Your task to perform on an android device: Add "amazon basics triple a" to the cart on newegg.com, then select checkout. Image 0: 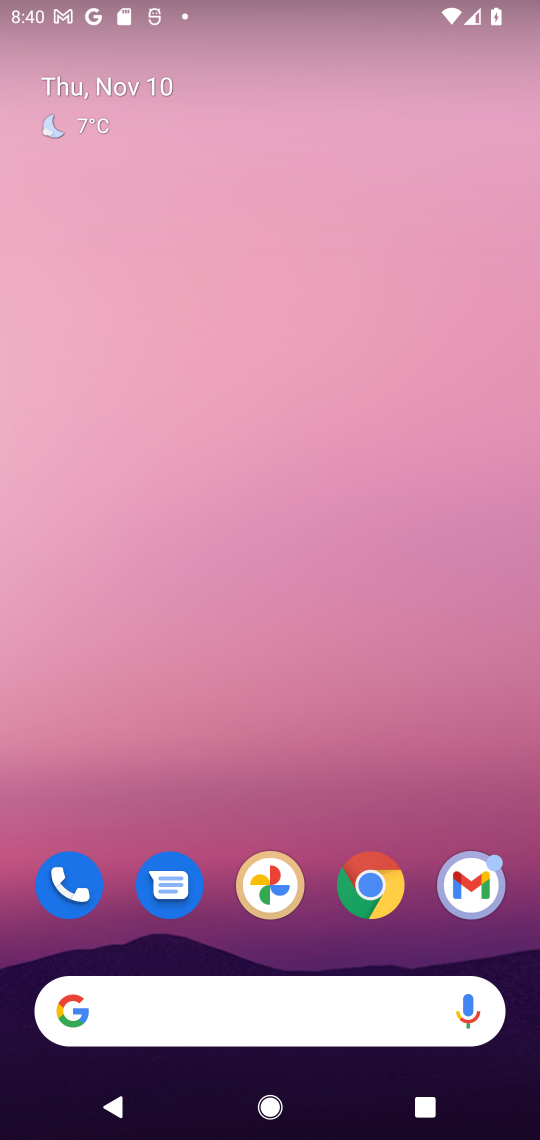
Step 0: click (381, 882)
Your task to perform on an android device: Add "amazon basics triple a" to the cart on newegg.com, then select checkout. Image 1: 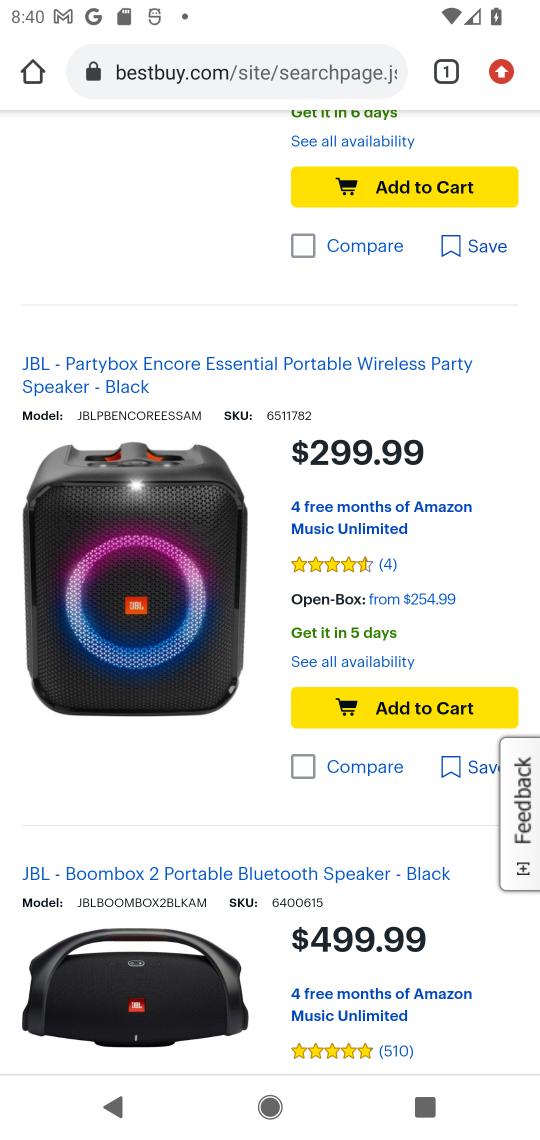
Step 1: click (305, 56)
Your task to perform on an android device: Add "amazon basics triple a" to the cart on newegg.com, then select checkout. Image 2: 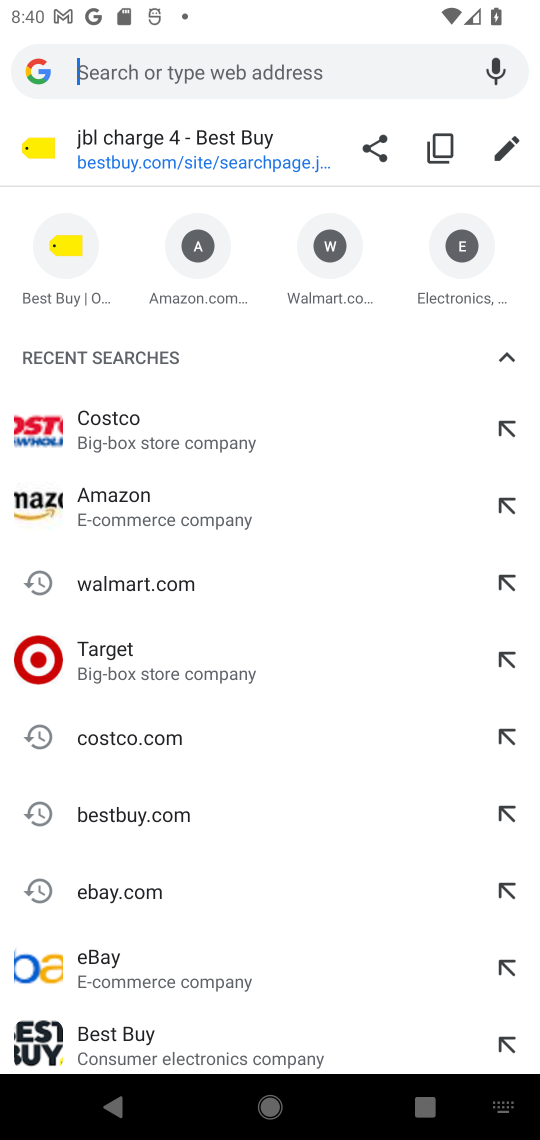
Step 2: type "newegg.com"
Your task to perform on an android device: Add "amazon basics triple a" to the cart on newegg.com, then select checkout. Image 3: 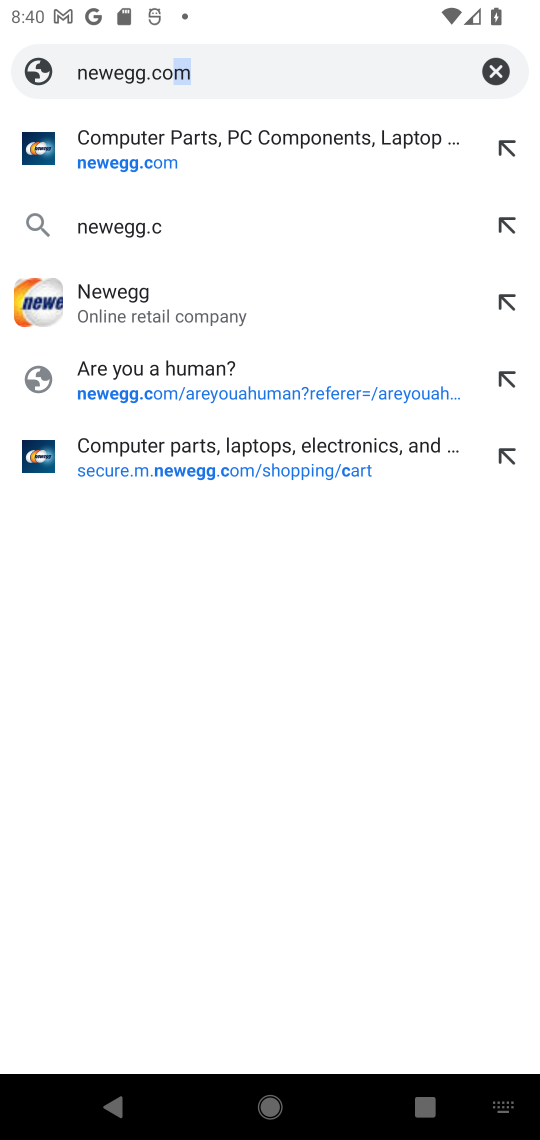
Step 3: press enter
Your task to perform on an android device: Add "amazon basics triple a" to the cart on newegg.com, then select checkout. Image 4: 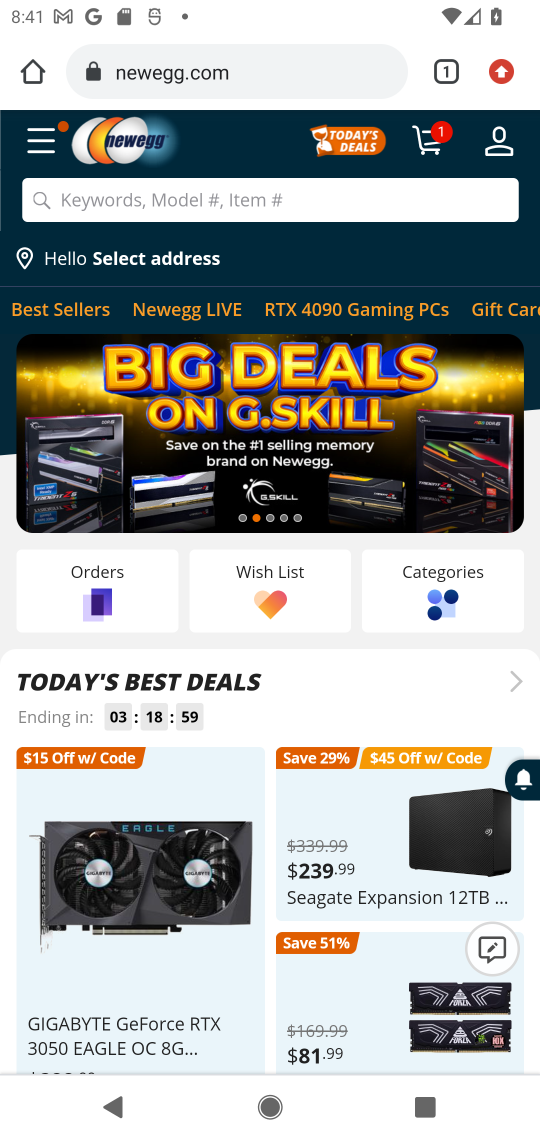
Step 4: click (315, 192)
Your task to perform on an android device: Add "amazon basics triple a" to the cart on newegg.com, then select checkout. Image 5: 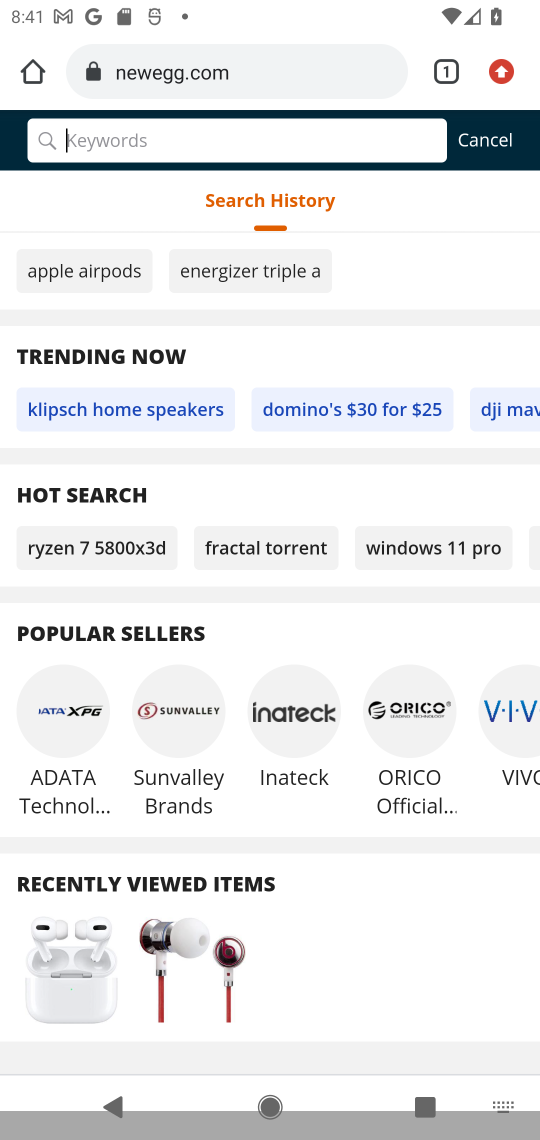
Step 5: press enter
Your task to perform on an android device: Add "amazon basics triple a" to the cart on newegg.com, then select checkout. Image 6: 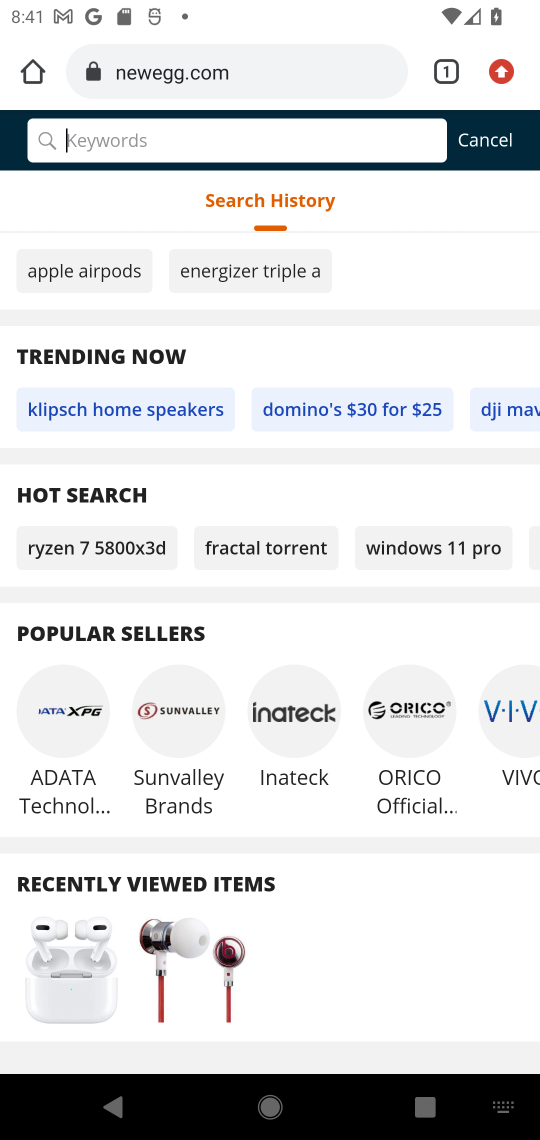
Step 6: type "amazon basics triple a"
Your task to perform on an android device: Add "amazon basics triple a" to the cart on newegg.com, then select checkout. Image 7: 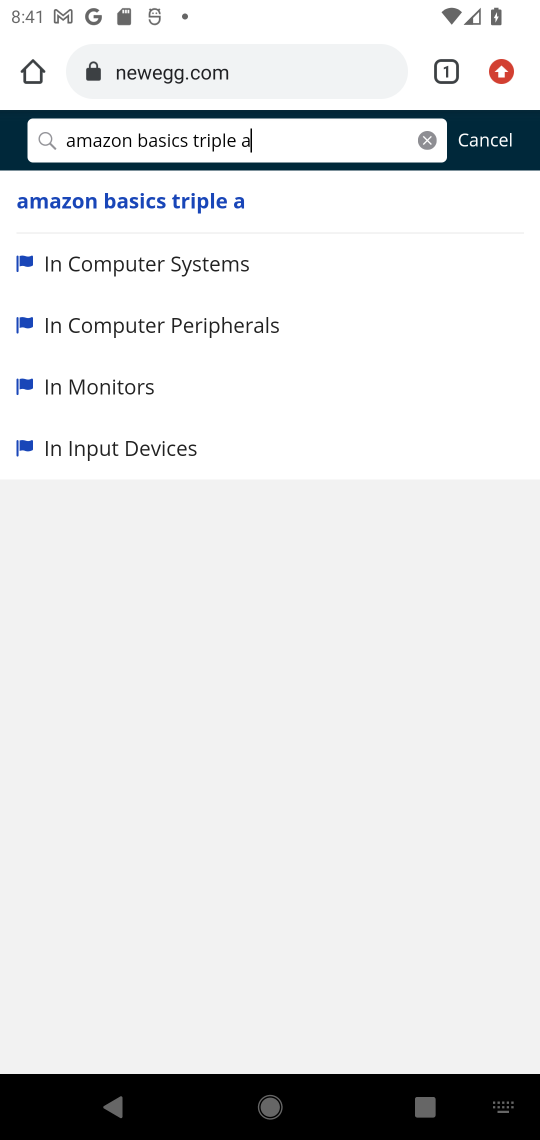
Step 7: click (132, 198)
Your task to perform on an android device: Add "amazon basics triple a" to the cart on newegg.com, then select checkout. Image 8: 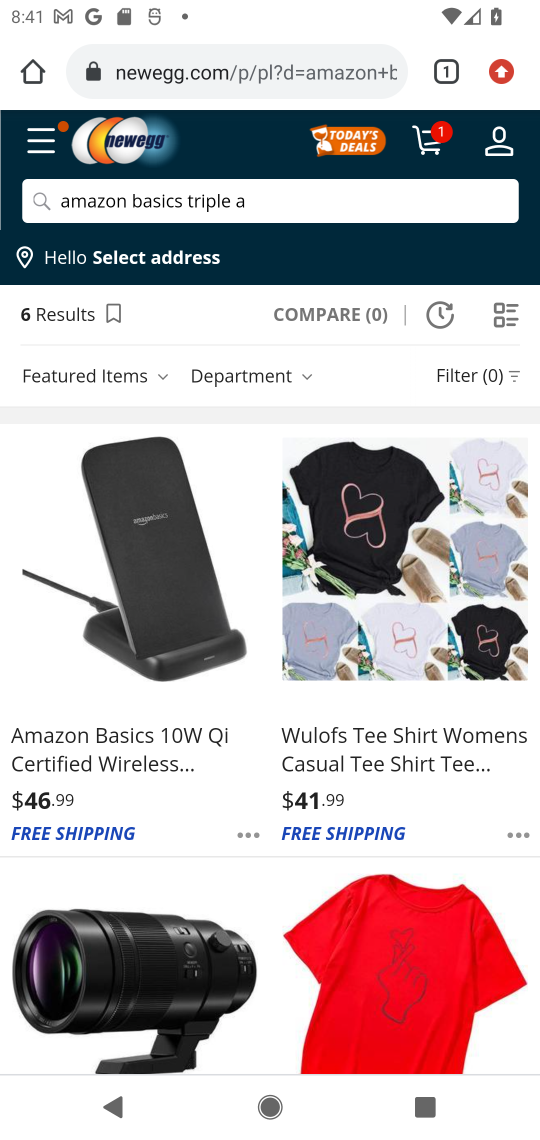
Step 8: drag from (325, 800) to (382, 543)
Your task to perform on an android device: Add "amazon basics triple a" to the cart on newegg.com, then select checkout. Image 9: 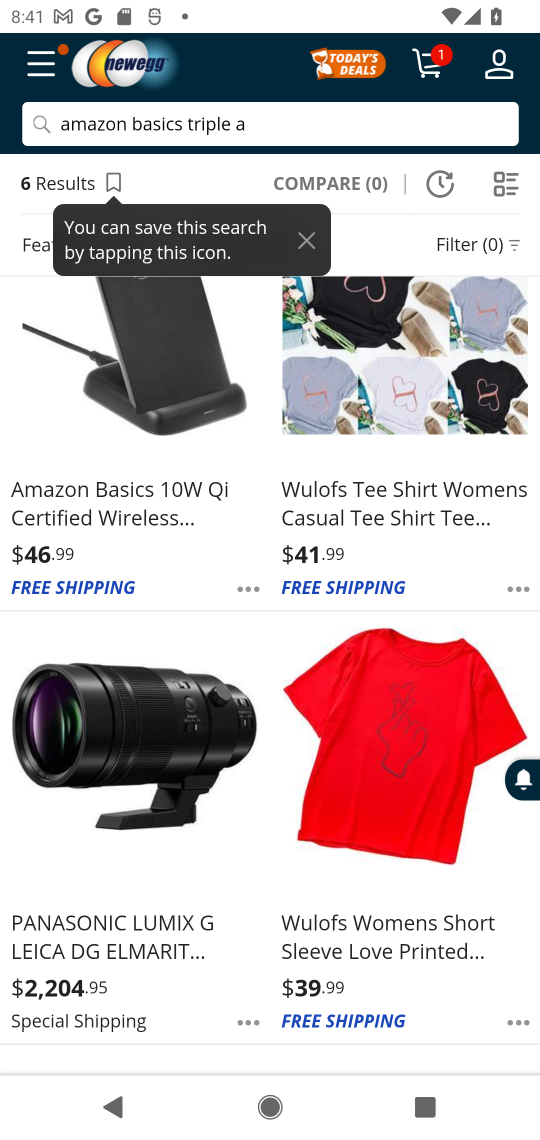
Step 9: drag from (375, 928) to (435, 587)
Your task to perform on an android device: Add "amazon basics triple a" to the cart on newegg.com, then select checkout. Image 10: 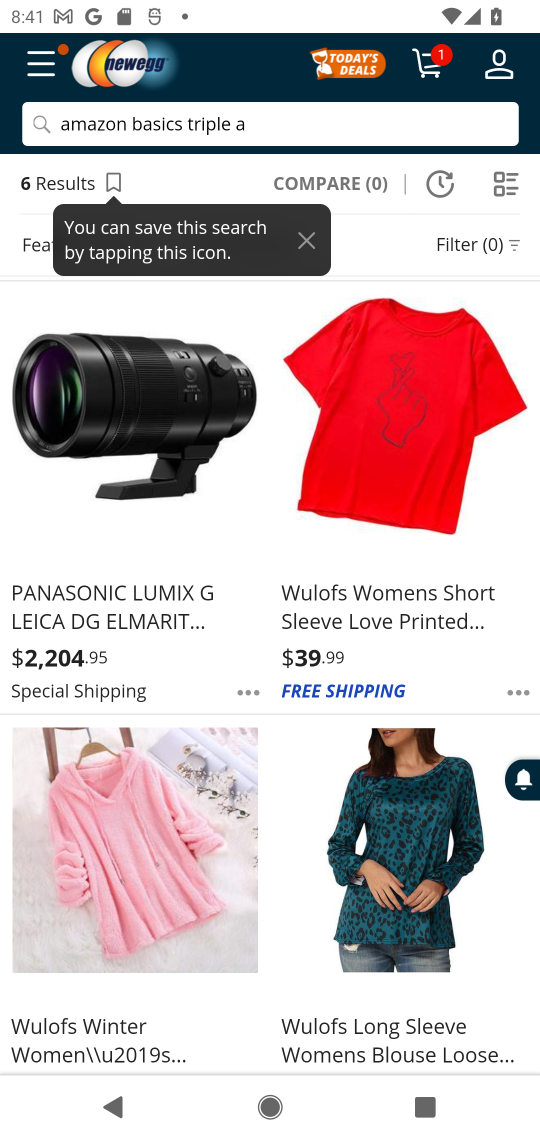
Step 10: drag from (345, 394) to (370, 1057)
Your task to perform on an android device: Add "amazon basics triple a" to the cart on newegg.com, then select checkout. Image 11: 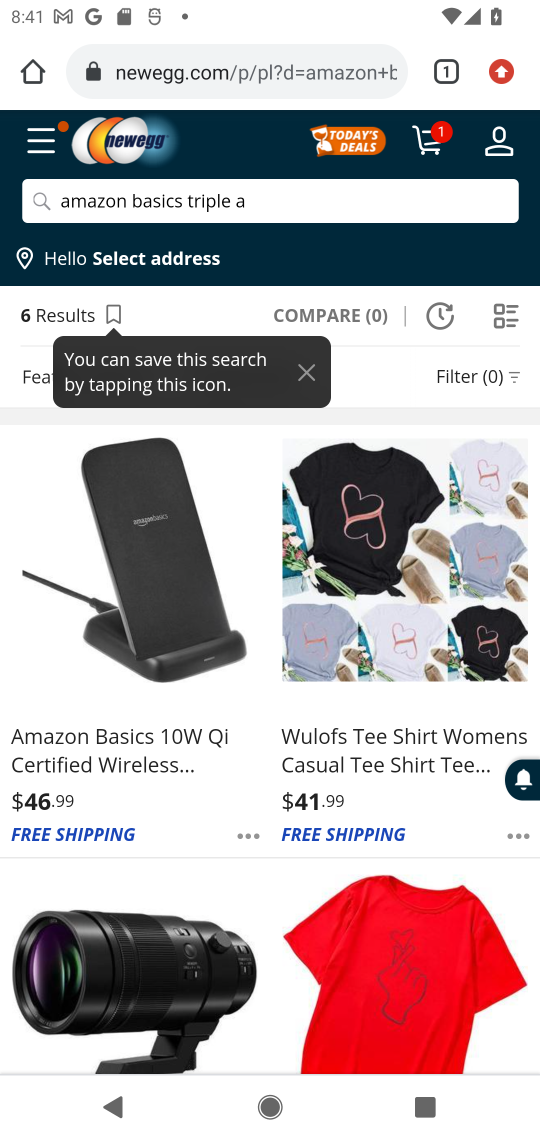
Step 11: click (325, 203)
Your task to perform on an android device: Add "amazon basics triple a" to the cart on newegg.com, then select checkout. Image 12: 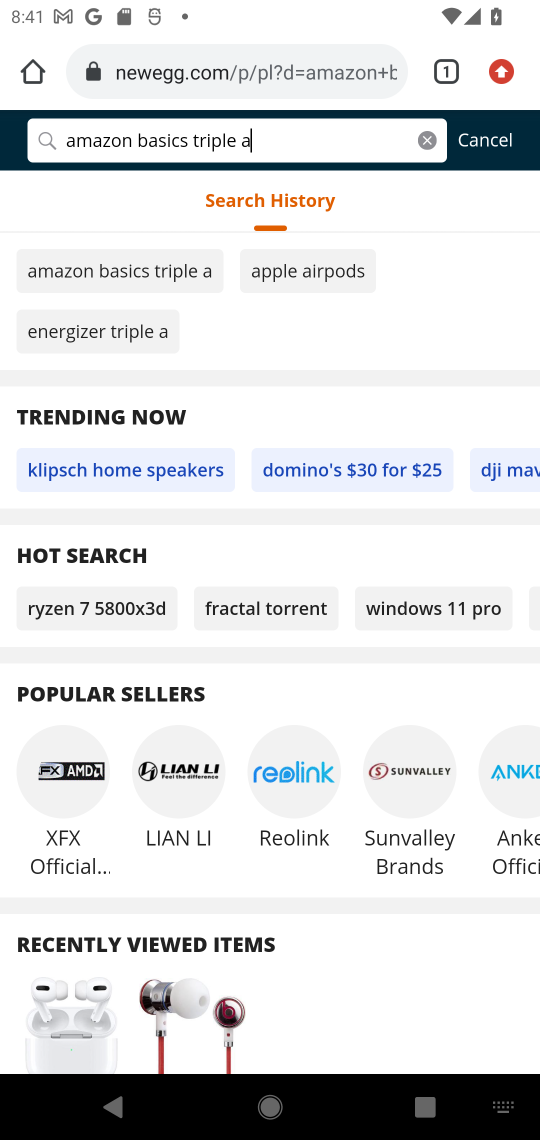
Step 12: click (167, 267)
Your task to perform on an android device: Add "amazon basics triple a" to the cart on newegg.com, then select checkout. Image 13: 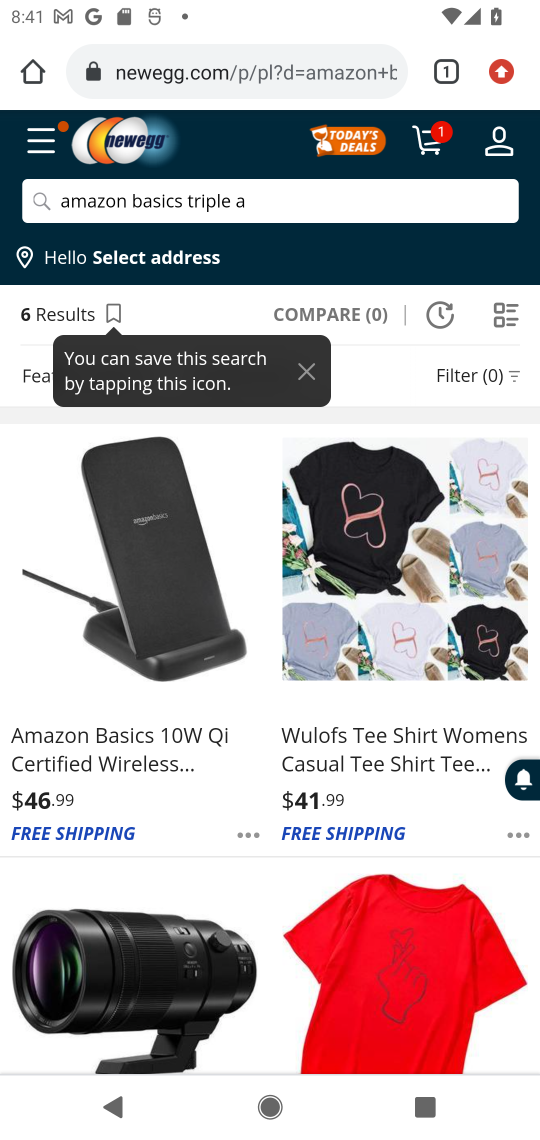
Step 13: click (385, 196)
Your task to perform on an android device: Add "amazon basics triple a" to the cart on newegg.com, then select checkout. Image 14: 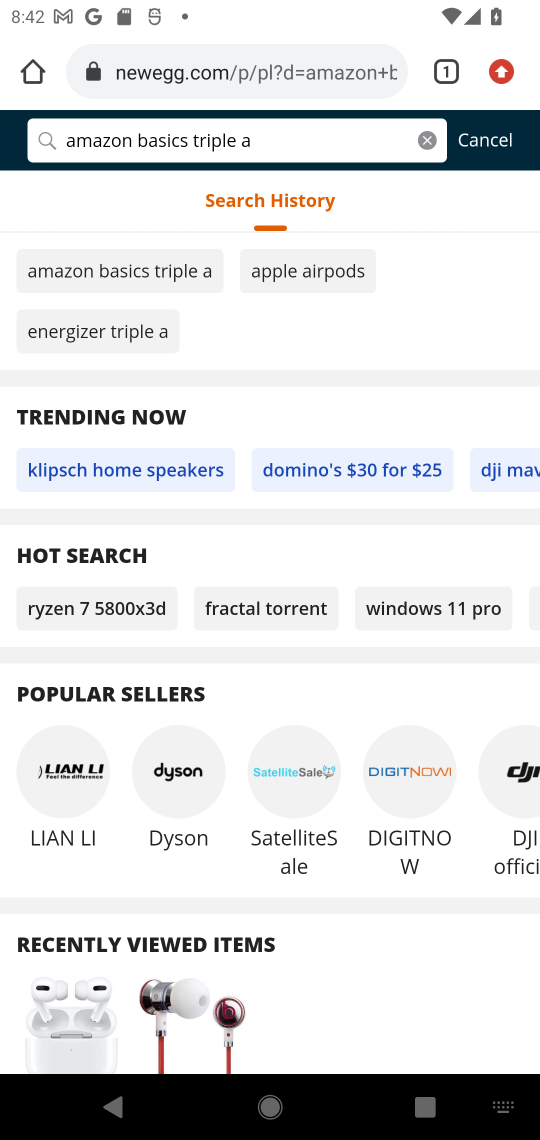
Step 14: task complete